Your task to perform on an android device: Go to location settings Image 0: 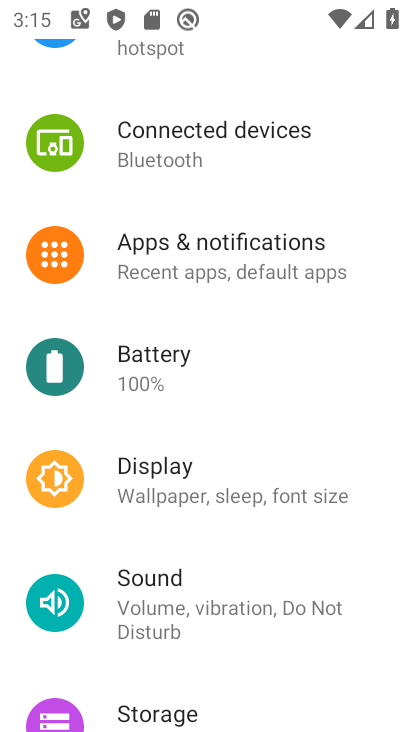
Step 0: drag from (262, 617) to (324, 268)
Your task to perform on an android device: Go to location settings Image 1: 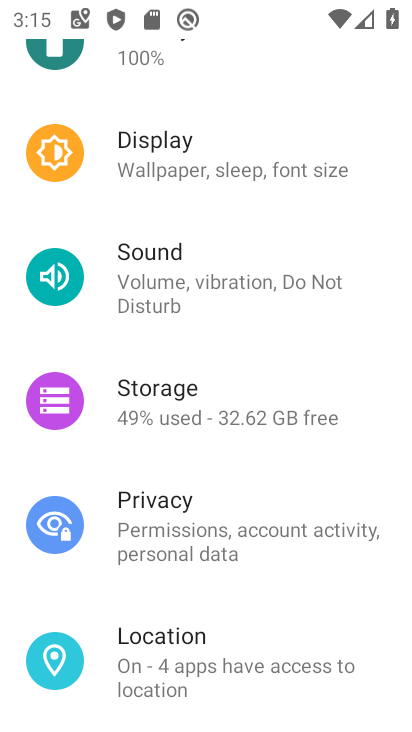
Step 1: click (293, 652)
Your task to perform on an android device: Go to location settings Image 2: 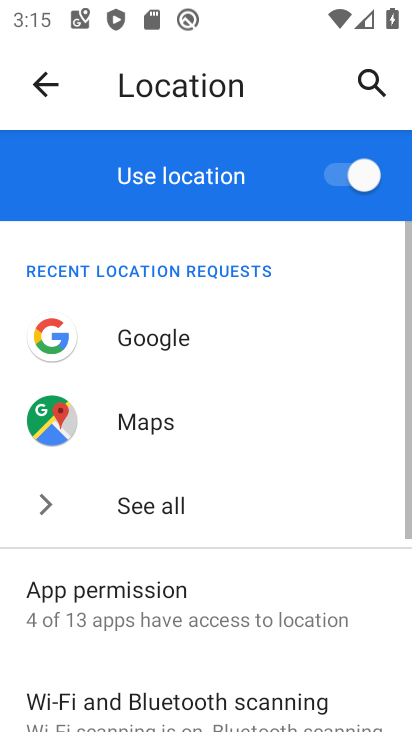
Step 2: task complete